Your task to perform on an android device: Clear the cart on walmart.com. Search for "razer blackwidow" on walmart.com, select the first entry, add it to the cart, then select checkout. Image 0: 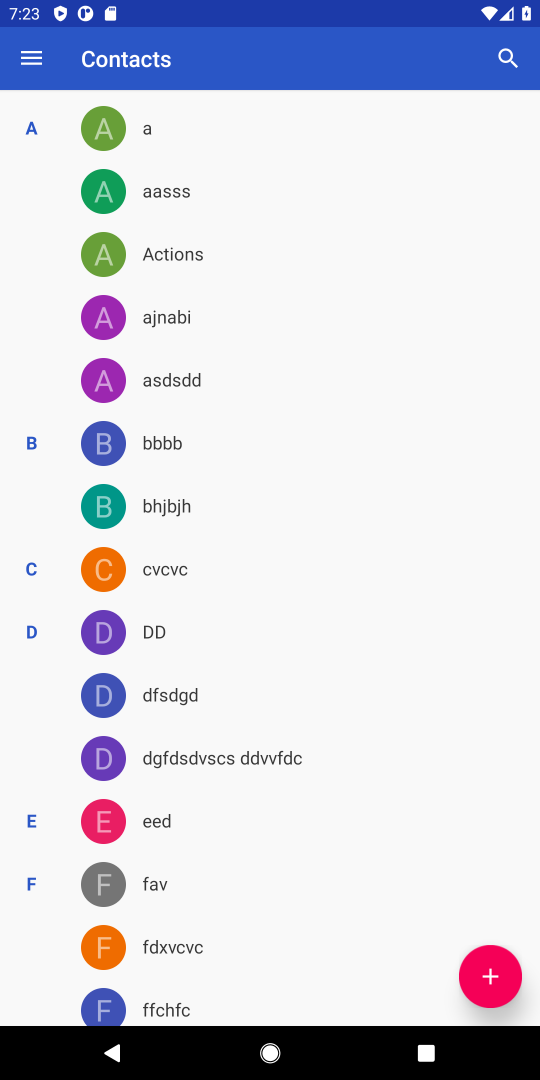
Step 0: press home button
Your task to perform on an android device: Clear the cart on walmart.com. Search for "razer blackwidow" on walmart.com, select the first entry, add it to the cart, then select checkout. Image 1: 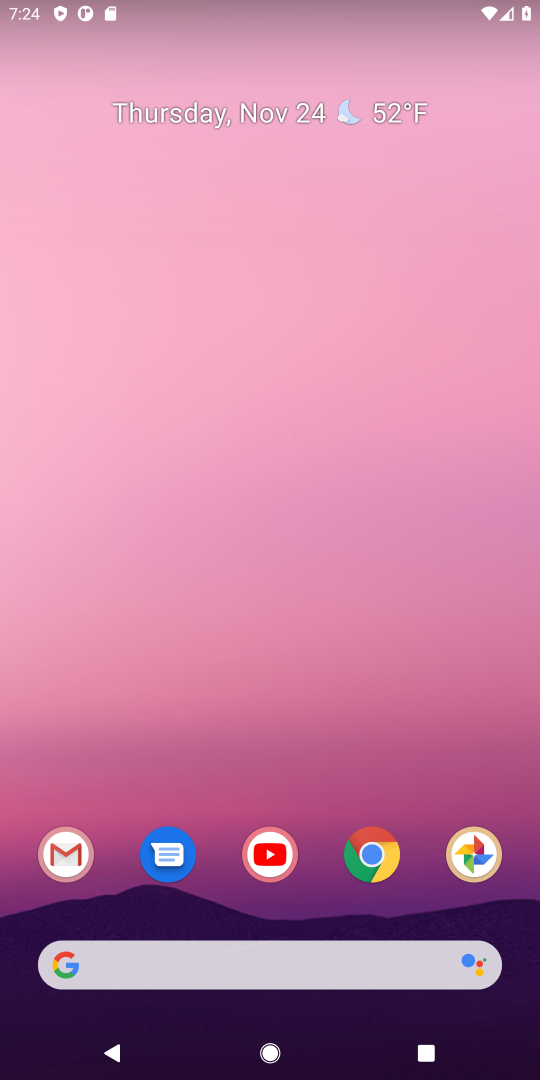
Step 1: click (382, 859)
Your task to perform on an android device: Clear the cart on walmart.com. Search for "razer blackwidow" on walmart.com, select the first entry, add it to the cart, then select checkout. Image 2: 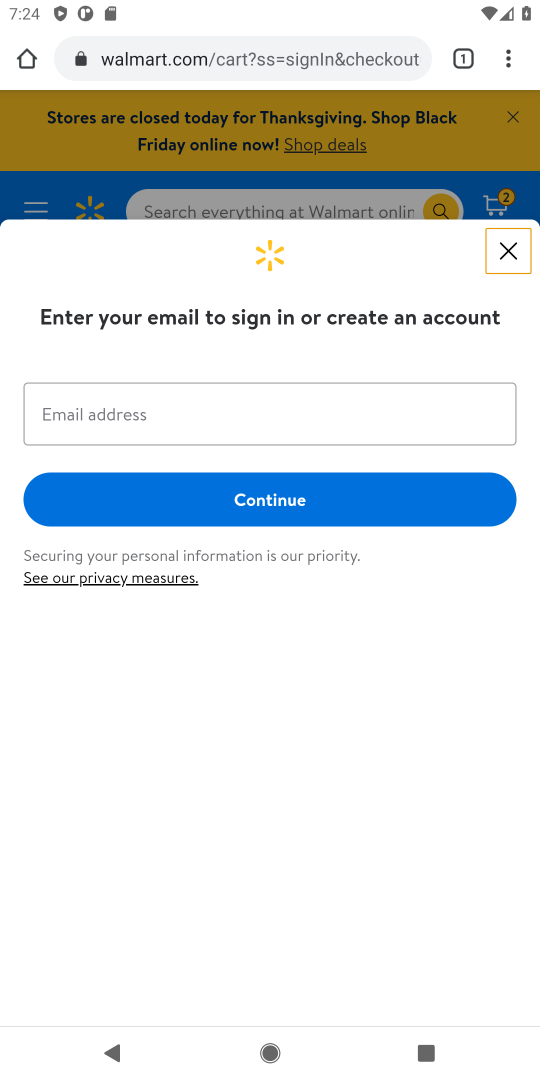
Step 2: click (504, 245)
Your task to perform on an android device: Clear the cart on walmart.com. Search for "razer blackwidow" on walmart.com, select the first entry, add it to the cart, then select checkout. Image 3: 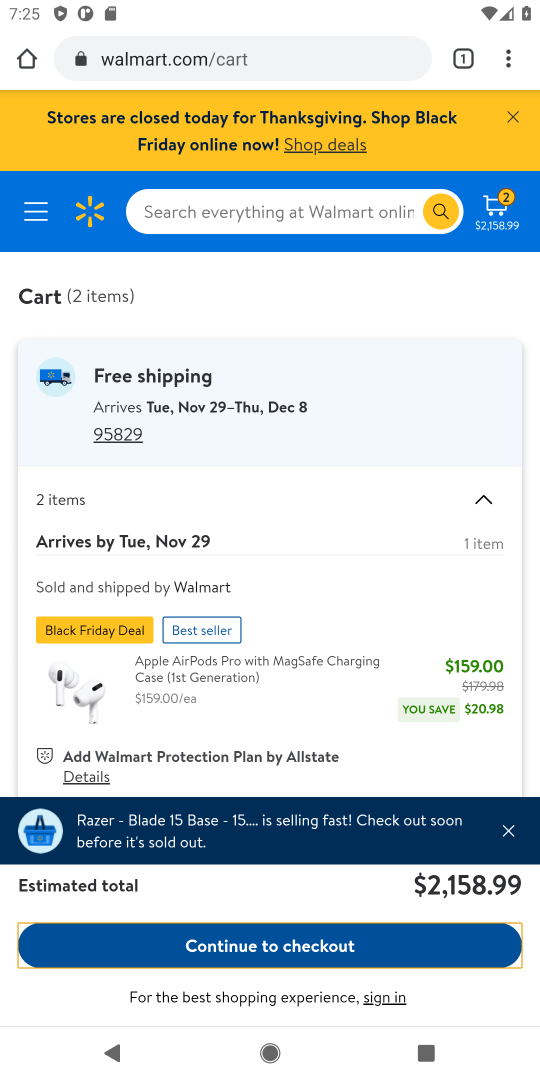
Step 3: drag from (376, 481) to (366, 322)
Your task to perform on an android device: Clear the cart on walmart.com. Search for "razer blackwidow" on walmart.com, select the first entry, add it to the cart, then select checkout. Image 4: 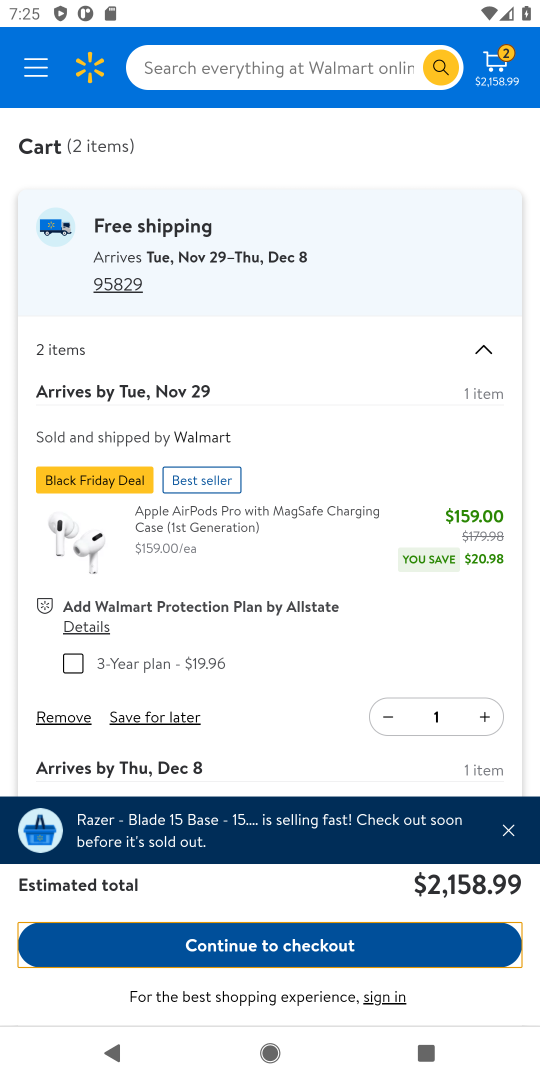
Step 4: click (53, 721)
Your task to perform on an android device: Clear the cart on walmart.com. Search for "razer blackwidow" on walmart.com, select the first entry, add it to the cart, then select checkout. Image 5: 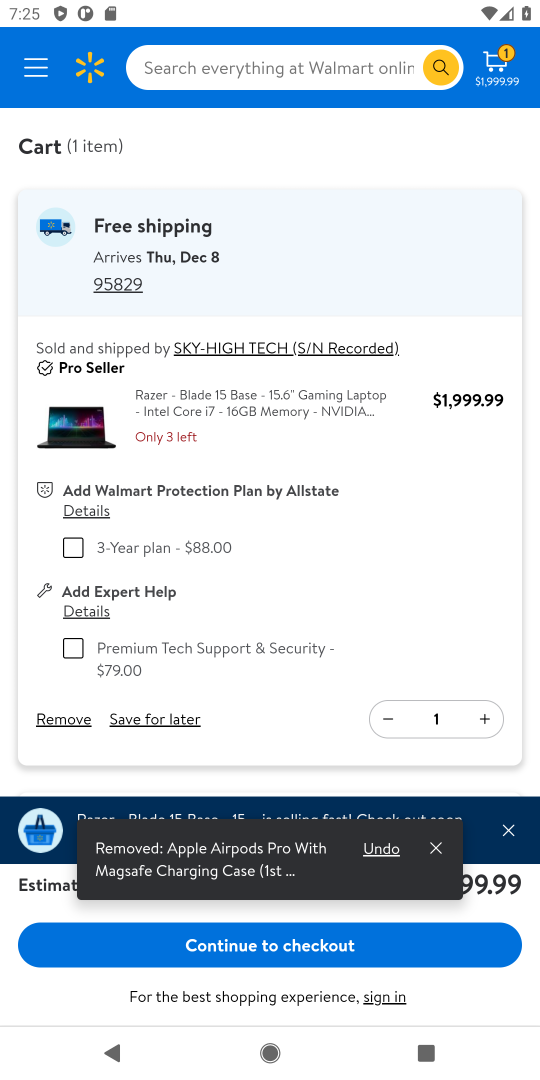
Step 5: click (54, 722)
Your task to perform on an android device: Clear the cart on walmart.com. Search for "razer blackwidow" on walmart.com, select the first entry, add it to the cart, then select checkout. Image 6: 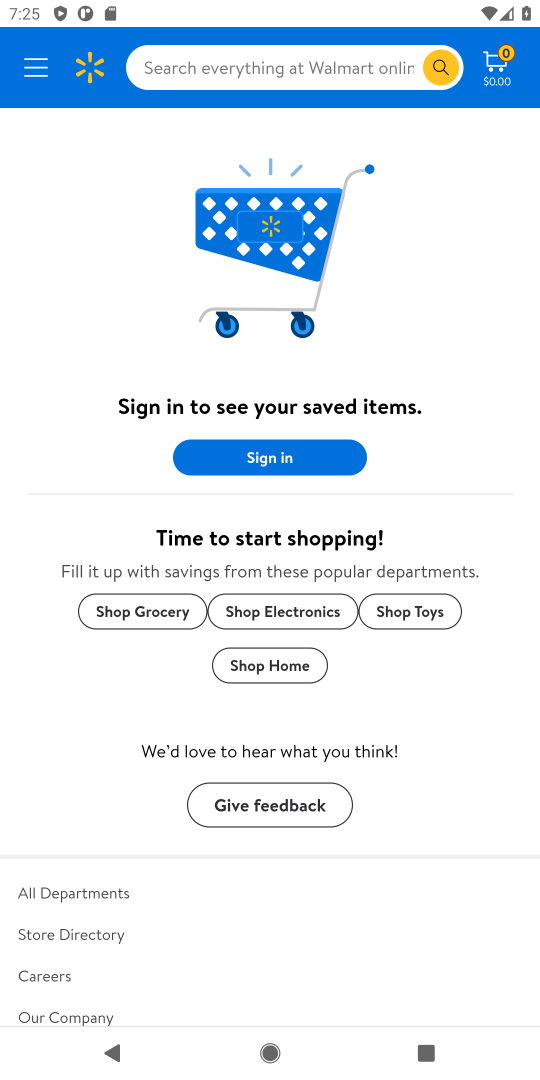
Step 6: click (238, 69)
Your task to perform on an android device: Clear the cart on walmart.com. Search for "razer blackwidow" on walmart.com, select the first entry, add it to the cart, then select checkout. Image 7: 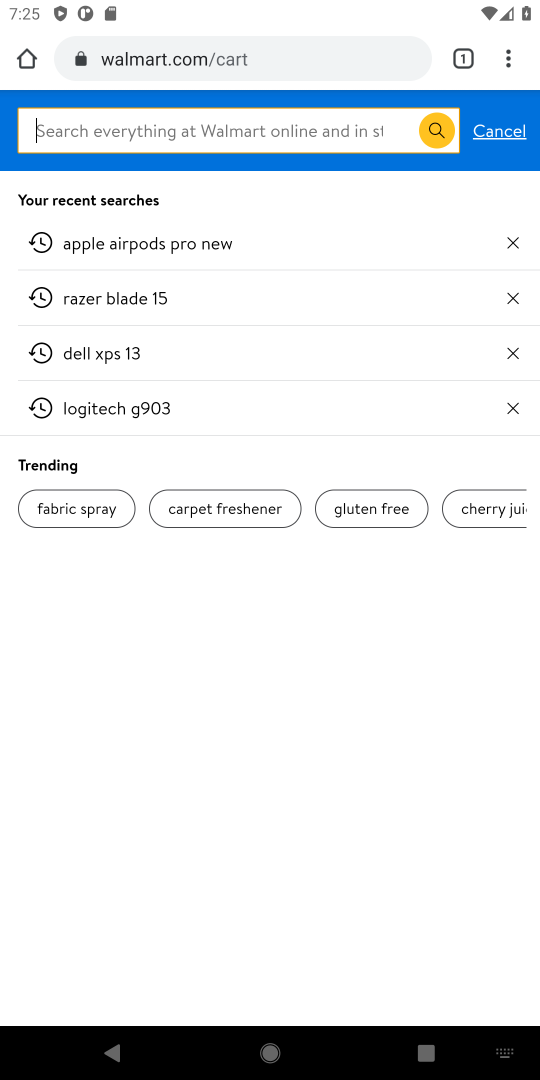
Step 7: type "razer blackwidow"
Your task to perform on an android device: Clear the cart on walmart.com. Search for "razer blackwidow" on walmart.com, select the first entry, add it to the cart, then select checkout. Image 8: 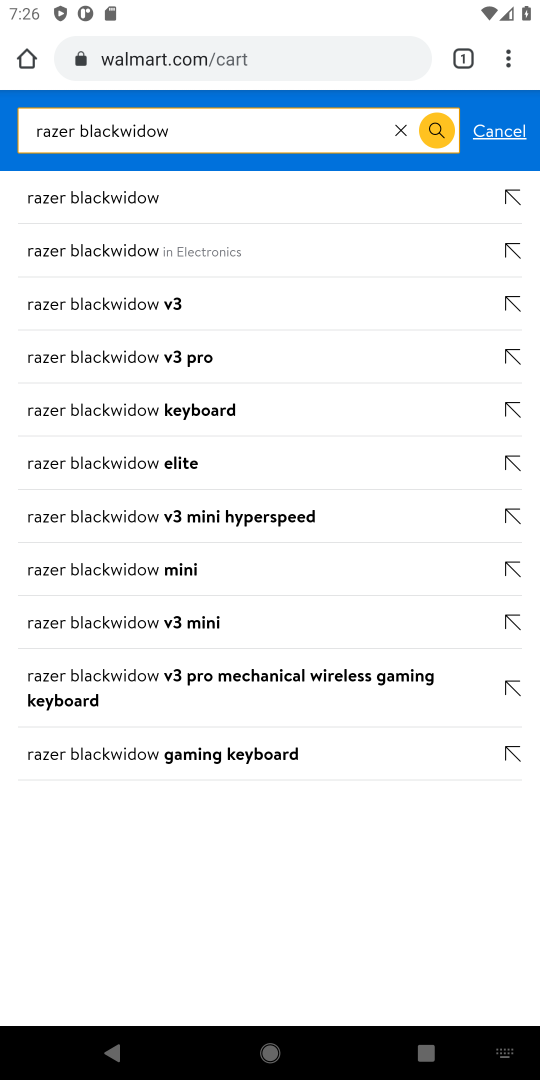
Step 8: click (56, 204)
Your task to perform on an android device: Clear the cart on walmart.com. Search for "razer blackwidow" on walmart.com, select the first entry, add it to the cart, then select checkout. Image 9: 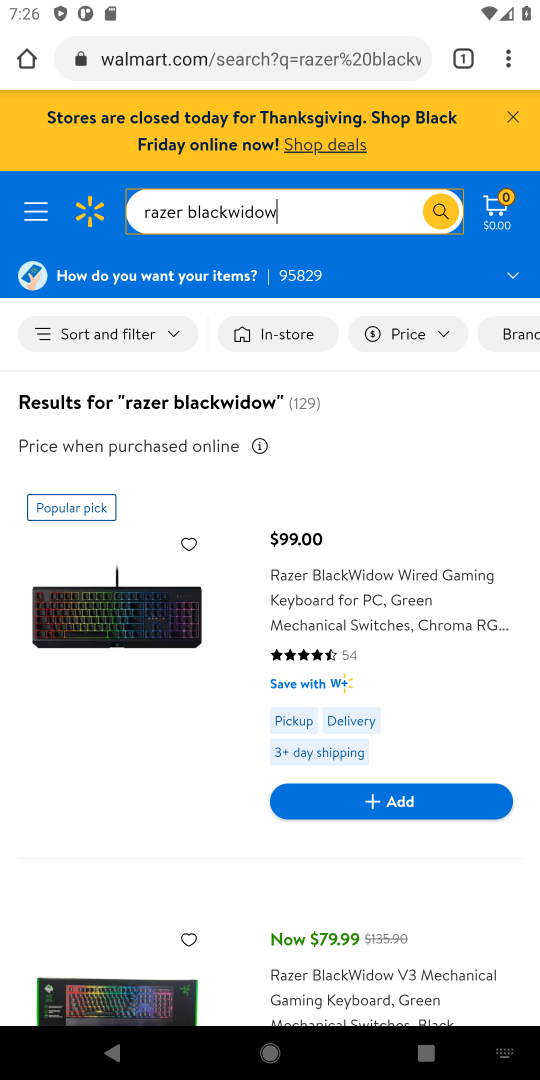
Step 9: click (356, 808)
Your task to perform on an android device: Clear the cart on walmart.com. Search for "razer blackwidow" on walmart.com, select the first entry, add it to the cart, then select checkout. Image 10: 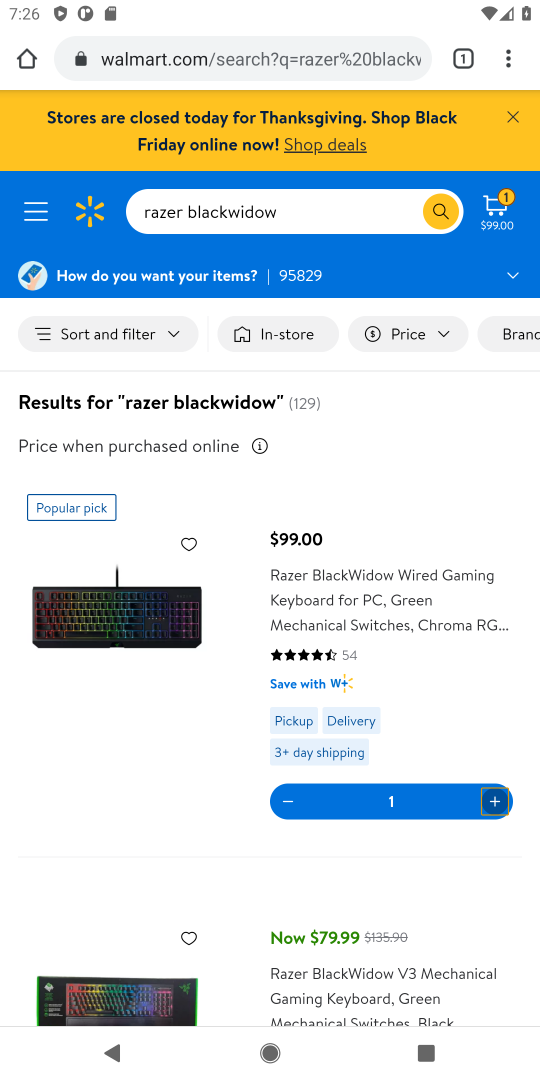
Step 10: click (500, 212)
Your task to perform on an android device: Clear the cart on walmart.com. Search for "razer blackwidow" on walmart.com, select the first entry, add it to the cart, then select checkout. Image 11: 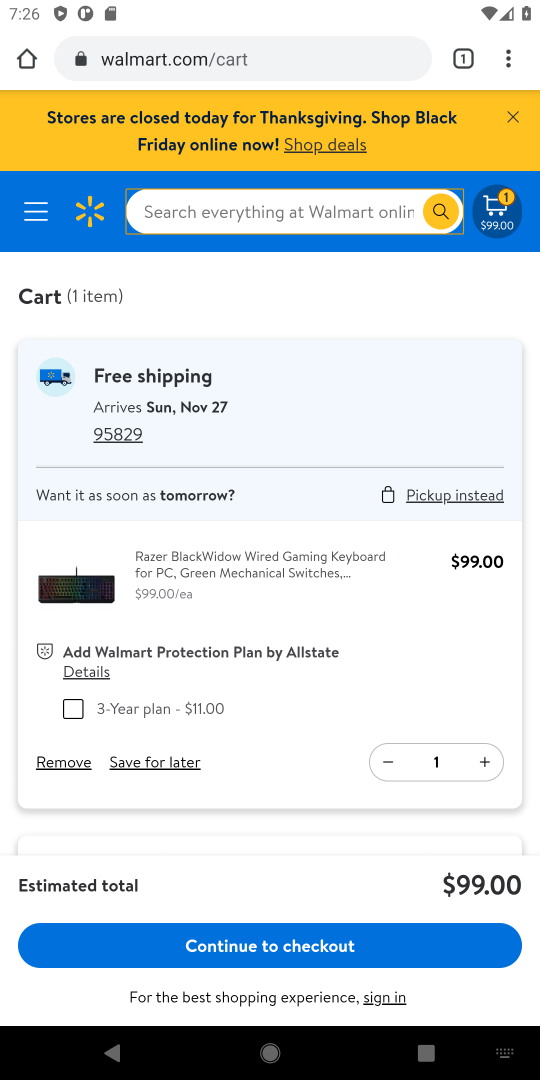
Step 11: click (232, 945)
Your task to perform on an android device: Clear the cart on walmart.com. Search for "razer blackwidow" on walmart.com, select the first entry, add it to the cart, then select checkout. Image 12: 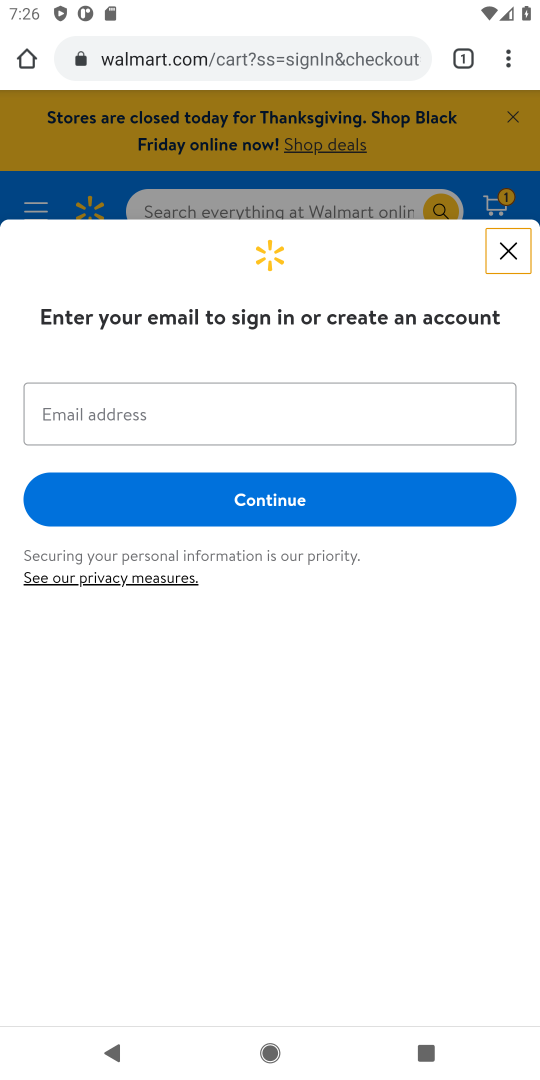
Step 12: task complete